Your task to perform on an android device: Go to network settings Image 0: 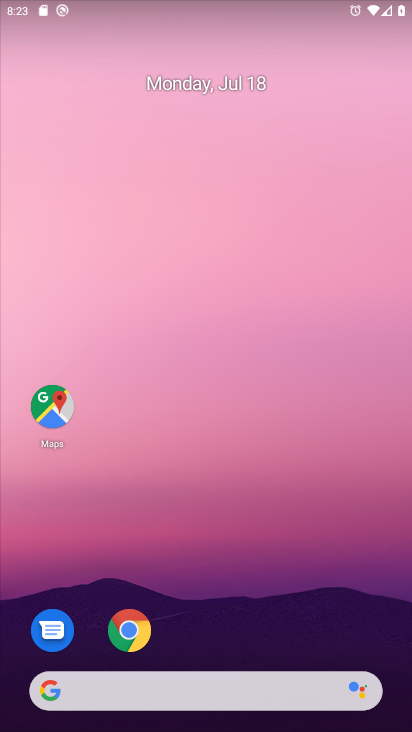
Step 0: drag from (193, 644) to (228, 156)
Your task to perform on an android device: Go to network settings Image 1: 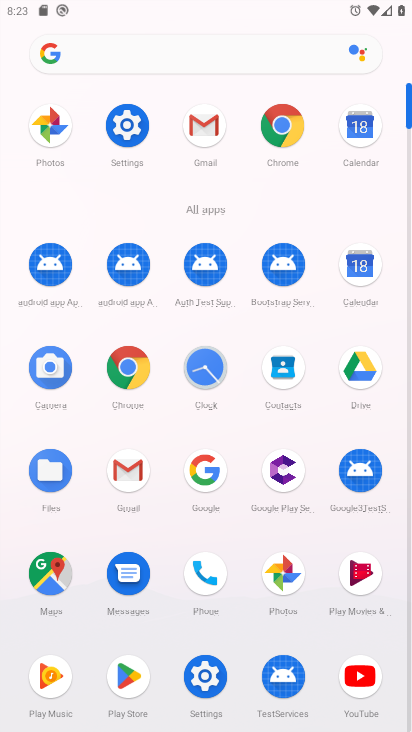
Step 1: click (123, 113)
Your task to perform on an android device: Go to network settings Image 2: 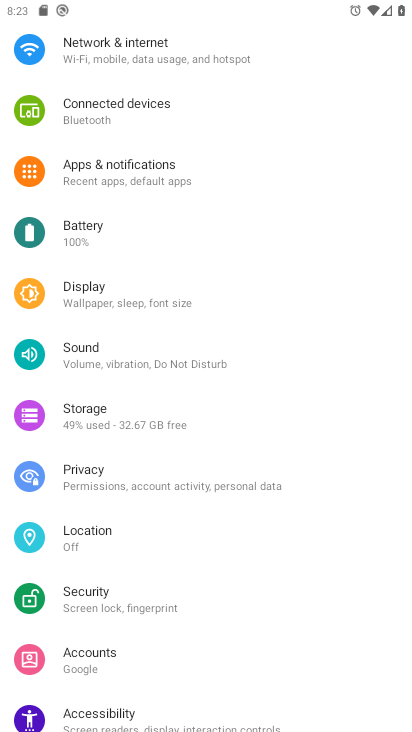
Step 2: click (124, 57)
Your task to perform on an android device: Go to network settings Image 3: 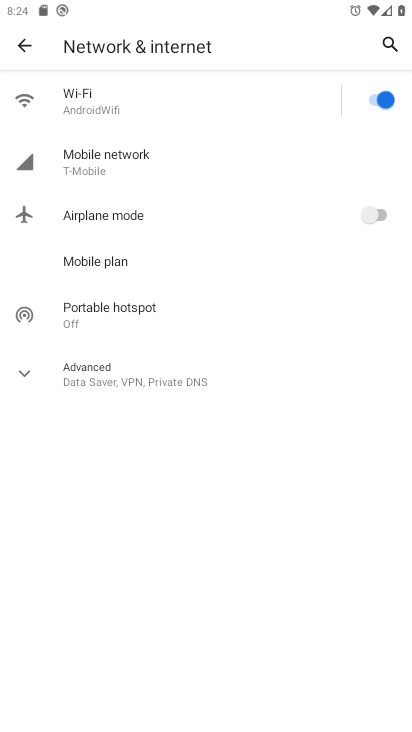
Step 3: task complete